Your task to perform on an android device: change the clock display to digital Image 0: 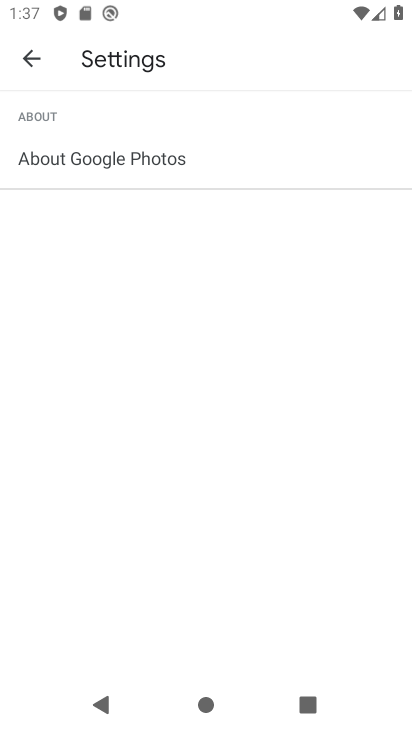
Step 0: press home button
Your task to perform on an android device: change the clock display to digital Image 1: 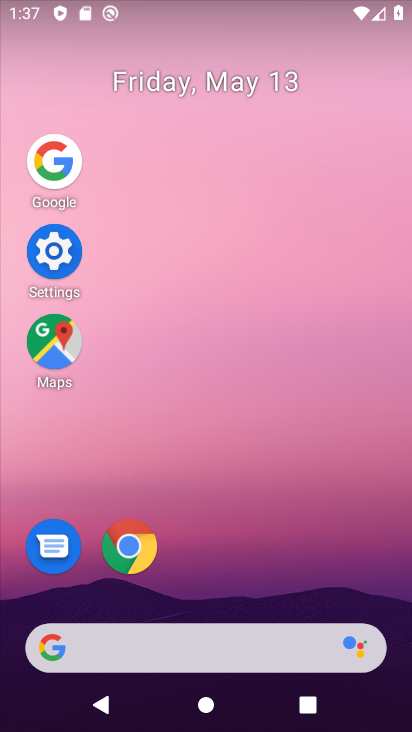
Step 1: drag from (269, 506) to (298, 120)
Your task to perform on an android device: change the clock display to digital Image 2: 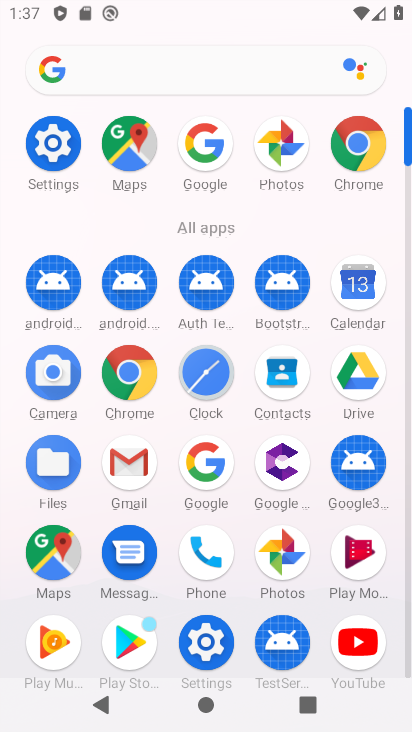
Step 2: drag from (197, 381) to (131, 200)
Your task to perform on an android device: change the clock display to digital Image 3: 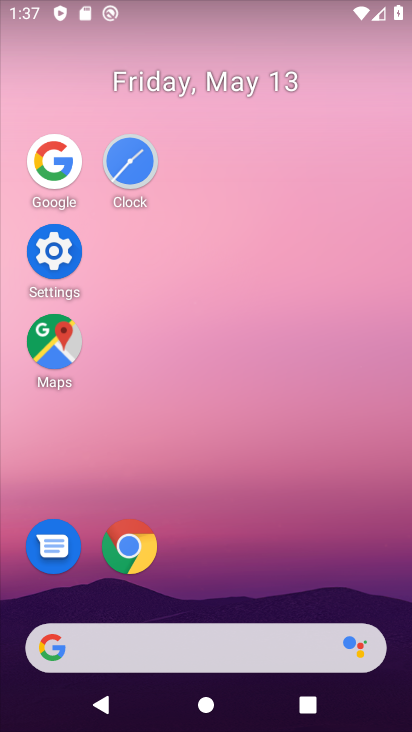
Step 3: click (127, 166)
Your task to perform on an android device: change the clock display to digital Image 4: 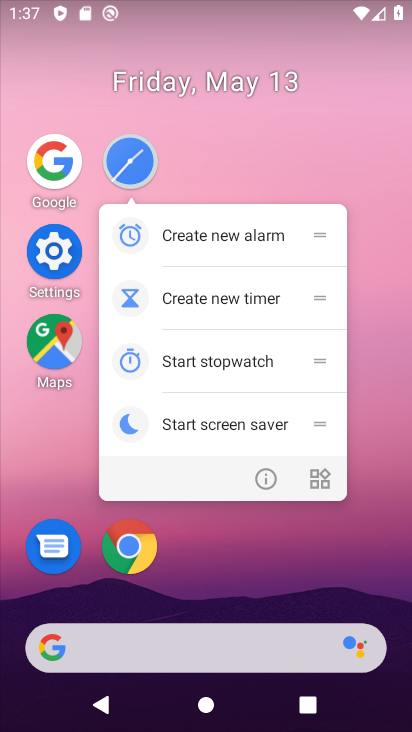
Step 4: click (128, 177)
Your task to perform on an android device: change the clock display to digital Image 5: 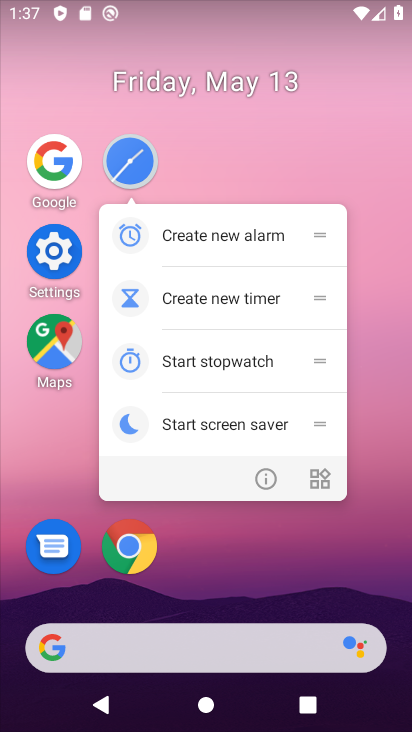
Step 5: click (133, 167)
Your task to perform on an android device: change the clock display to digital Image 6: 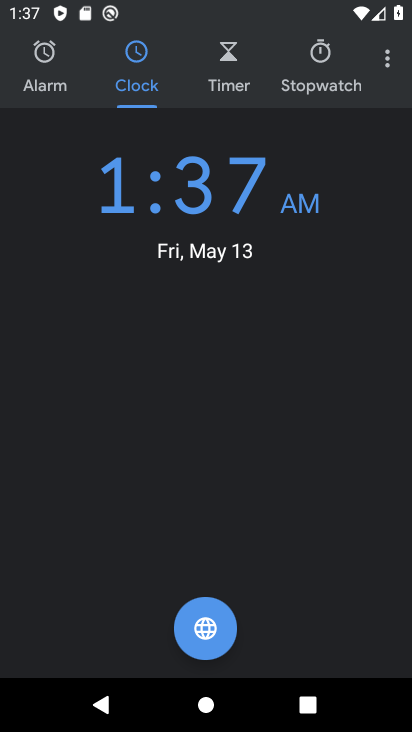
Step 6: click (379, 58)
Your task to perform on an android device: change the clock display to digital Image 7: 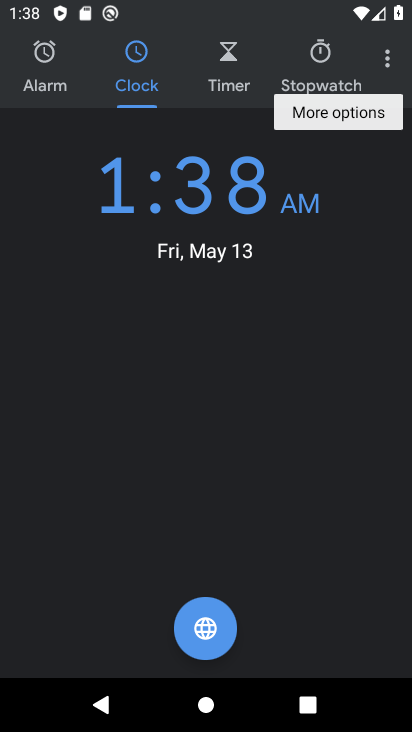
Step 7: click (379, 58)
Your task to perform on an android device: change the clock display to digital Image 8: 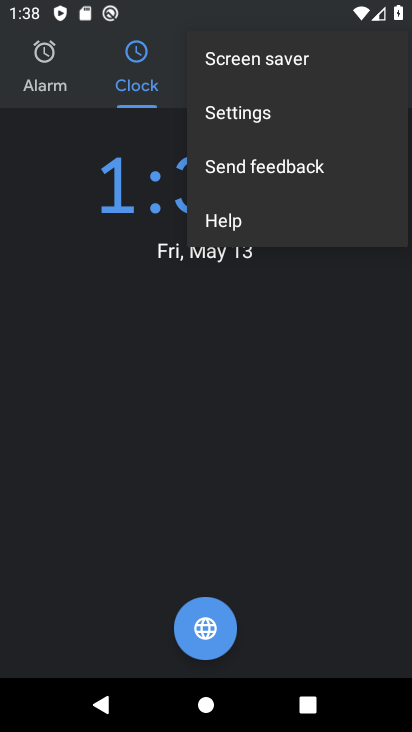
Step 8: click (271, 111)
Your task to perform on an android device: change the clock display to digital Image 9: 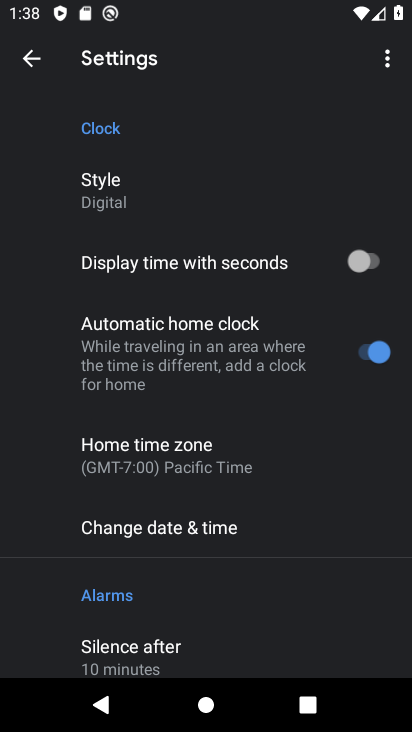
Step 9: click (259, 112)
Your task to perform on an android device: change the clock display to digital Image 10: 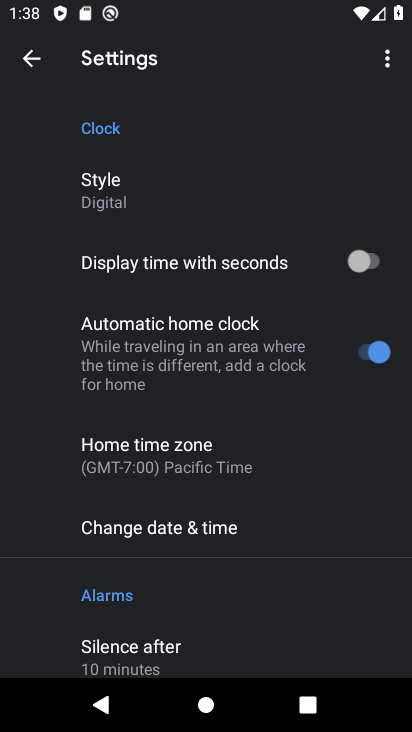
Step 10: task complete